Your task to perform on an android device: turn on airplane mode Image 0: 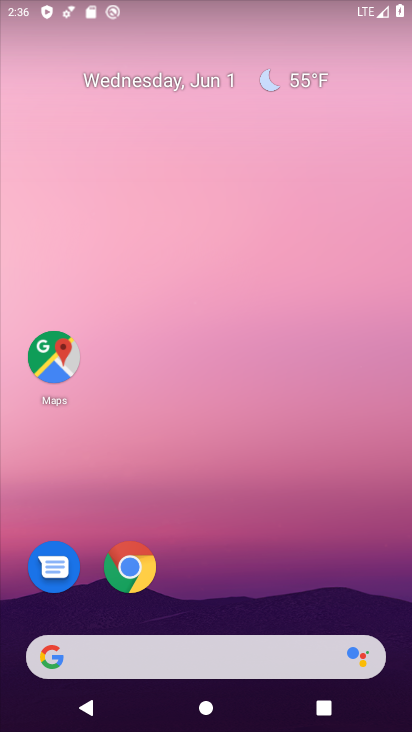
Step 0: drag from (163, 14) to (183, 630)
Your task to perform on an android device: turn on airplane mode Image 1: 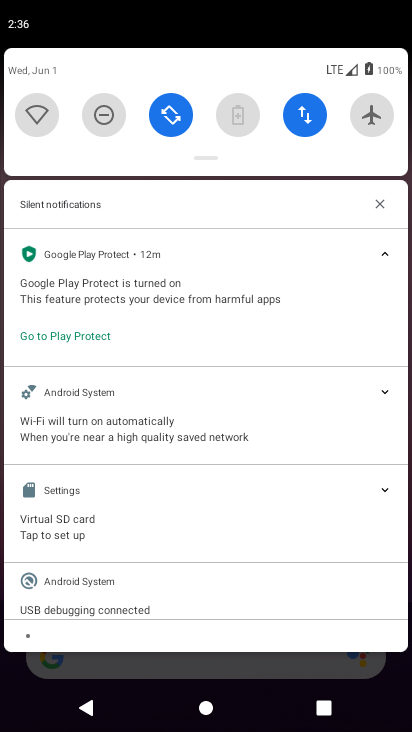
Step 1: drag from (219, 155) to (273, 715)
Your task to perform on an android device: turn on airplane mode Image 2: 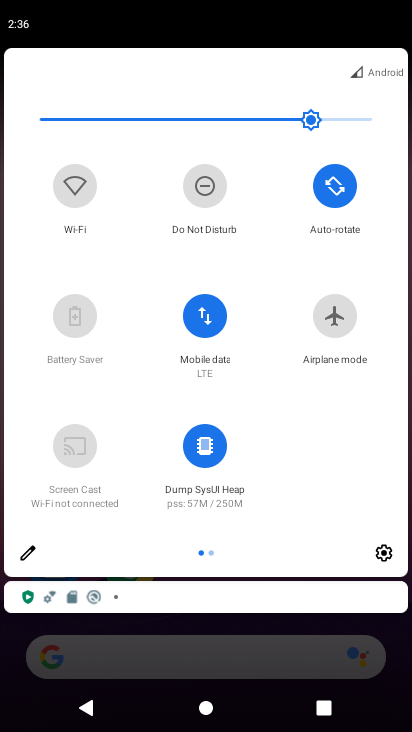
Step 2: click (336, 318)
Your task to perform on an android device: turn on airplane mode Image 3: 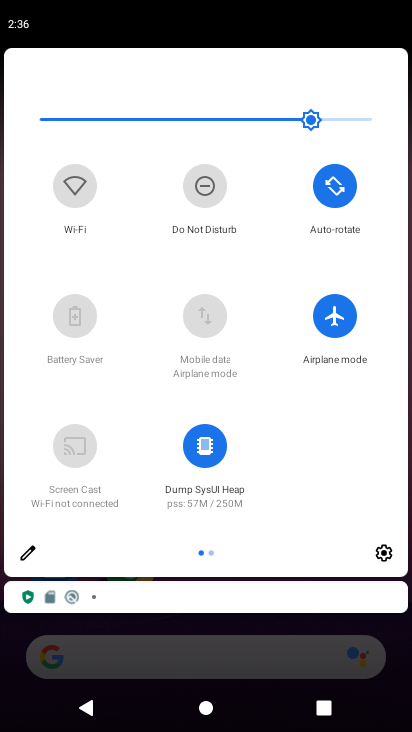
Step 3: task complete